Your task to perform on an android device: open app "PUBG MOBILE" (install if not already installed) and go to login screen Image 0: 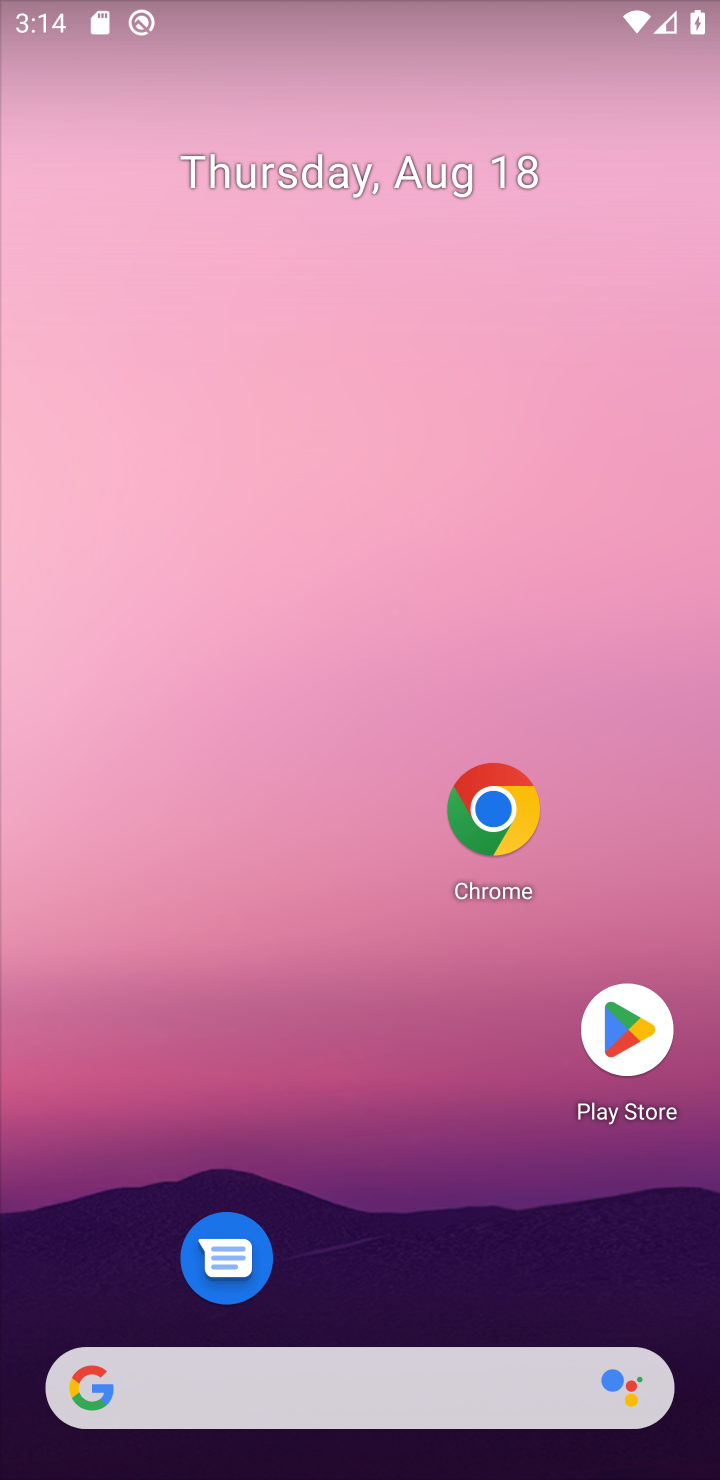
Step 0: drag from (389, 573) to (407, 471)
Your task to perform on an android device: open app "PUBG MOBILE" (install if not already installed) and go to login screen Image 1: 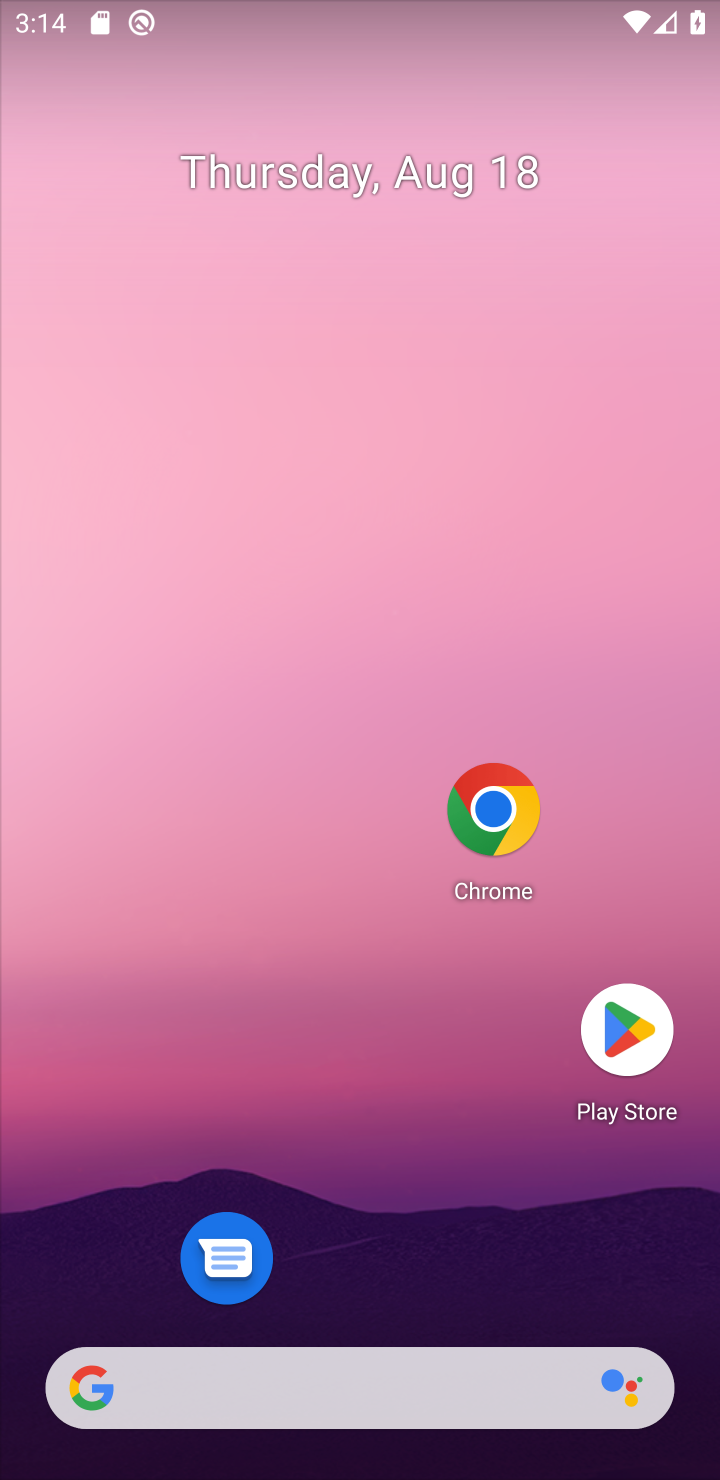
Step 1: drag from (373, 1284) to (412, 585)
Your task to perform on an android device: open app "PUBG MOBILE" (install if not already installed) and go to login screen Image 2: 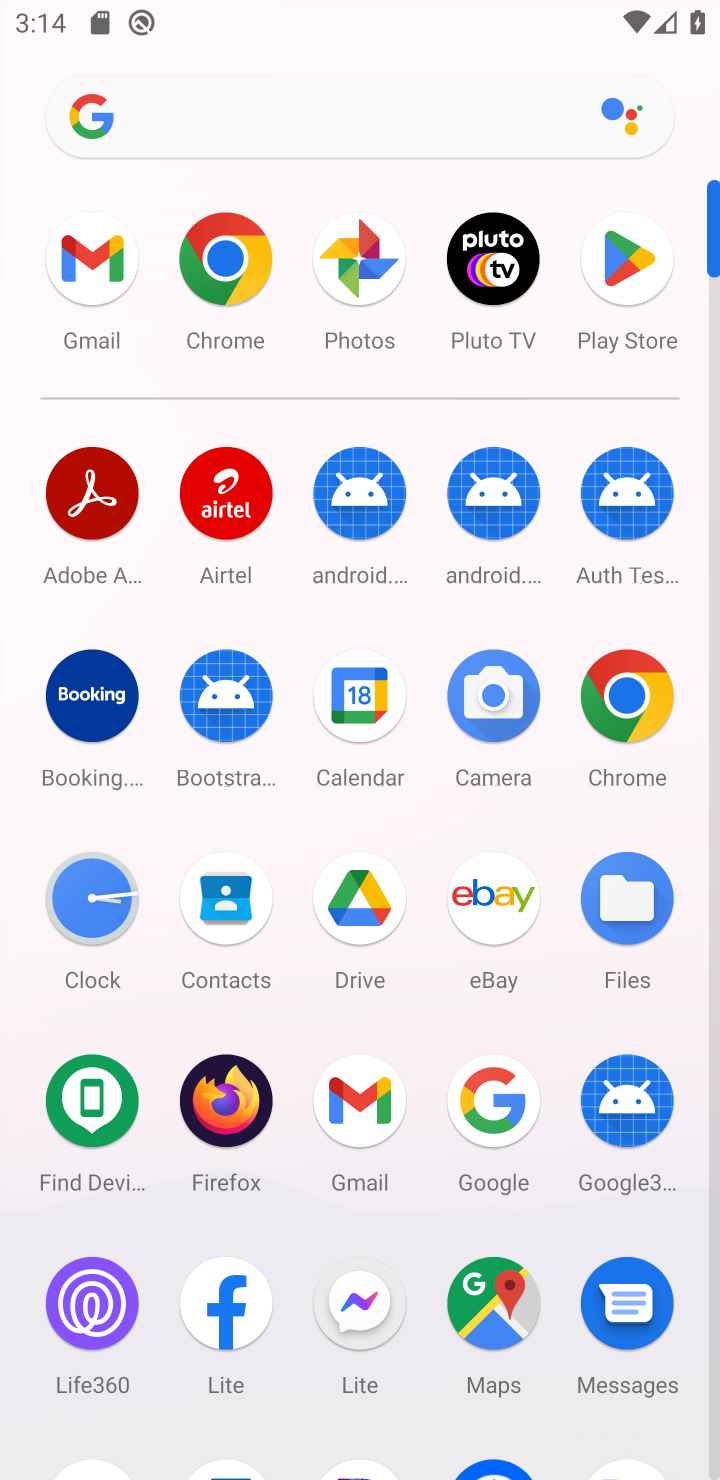
Step 2: click (598, 262)
Your task to perform on an android device: open app "PUBG MOBILE" (install if not already installed) and go to login screen Image 3: 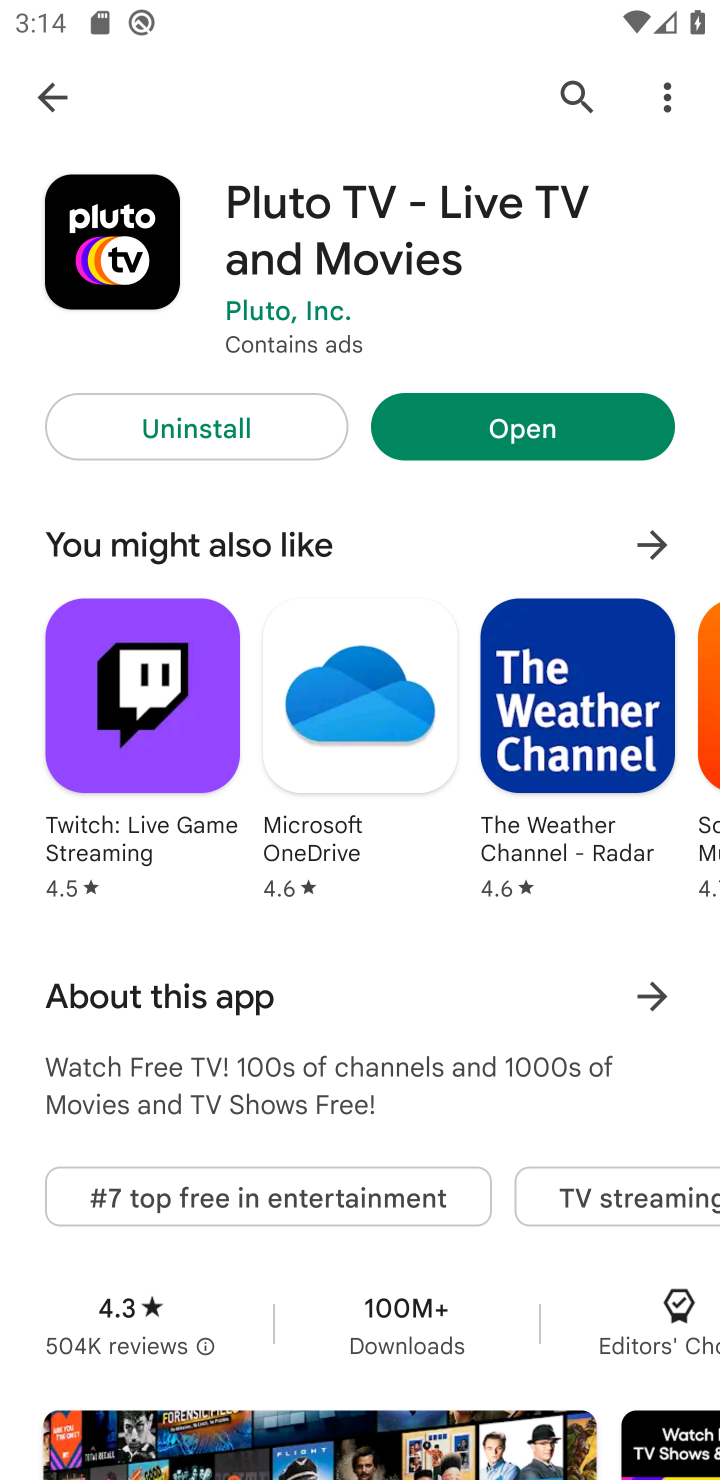
Step 3: click (47, 104)
Your task to perform on an android device: open app "PUBG MOBILE" (install if not already installed) and go to login screen Image 4: 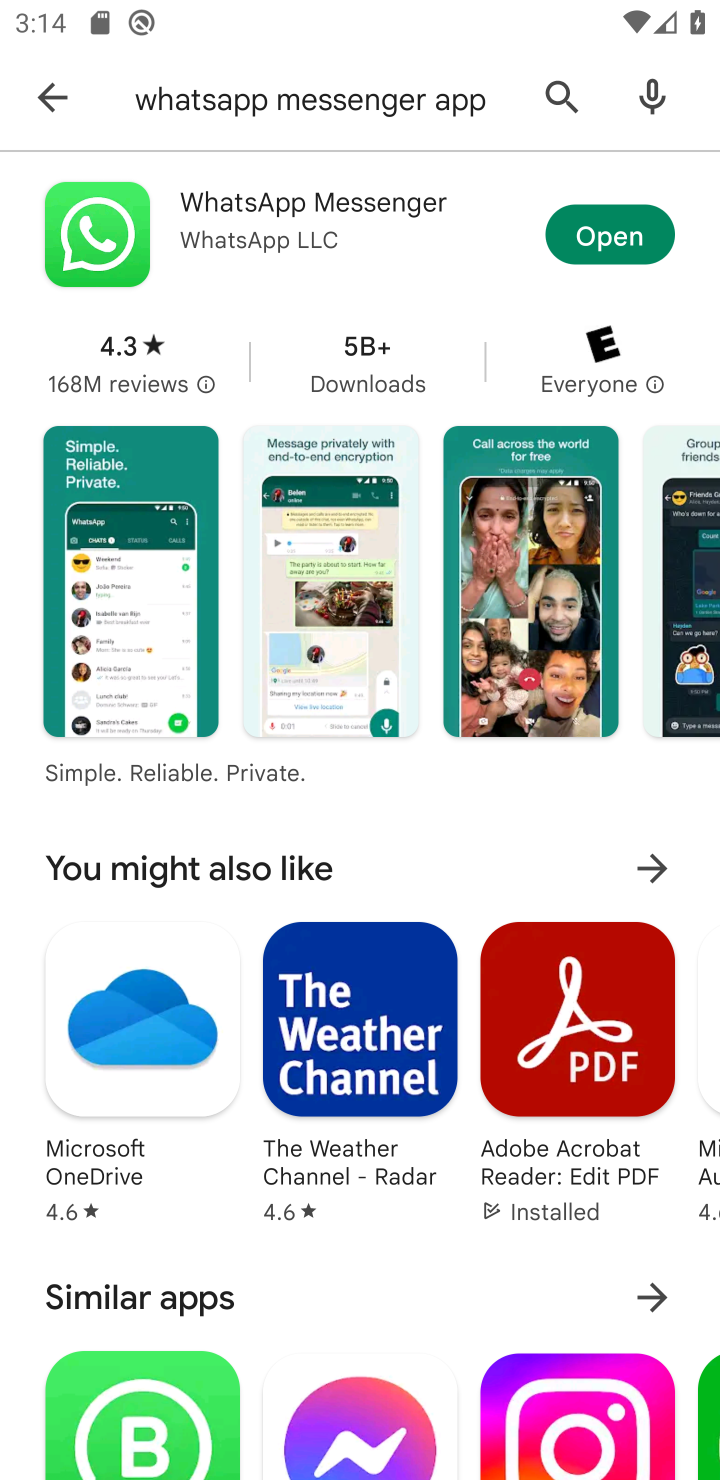
Step 4: click (63, 85)
Your task to perform on an android device: open app "PUBG MOBILE" (install if not already installed) and go to login screen Image 5: 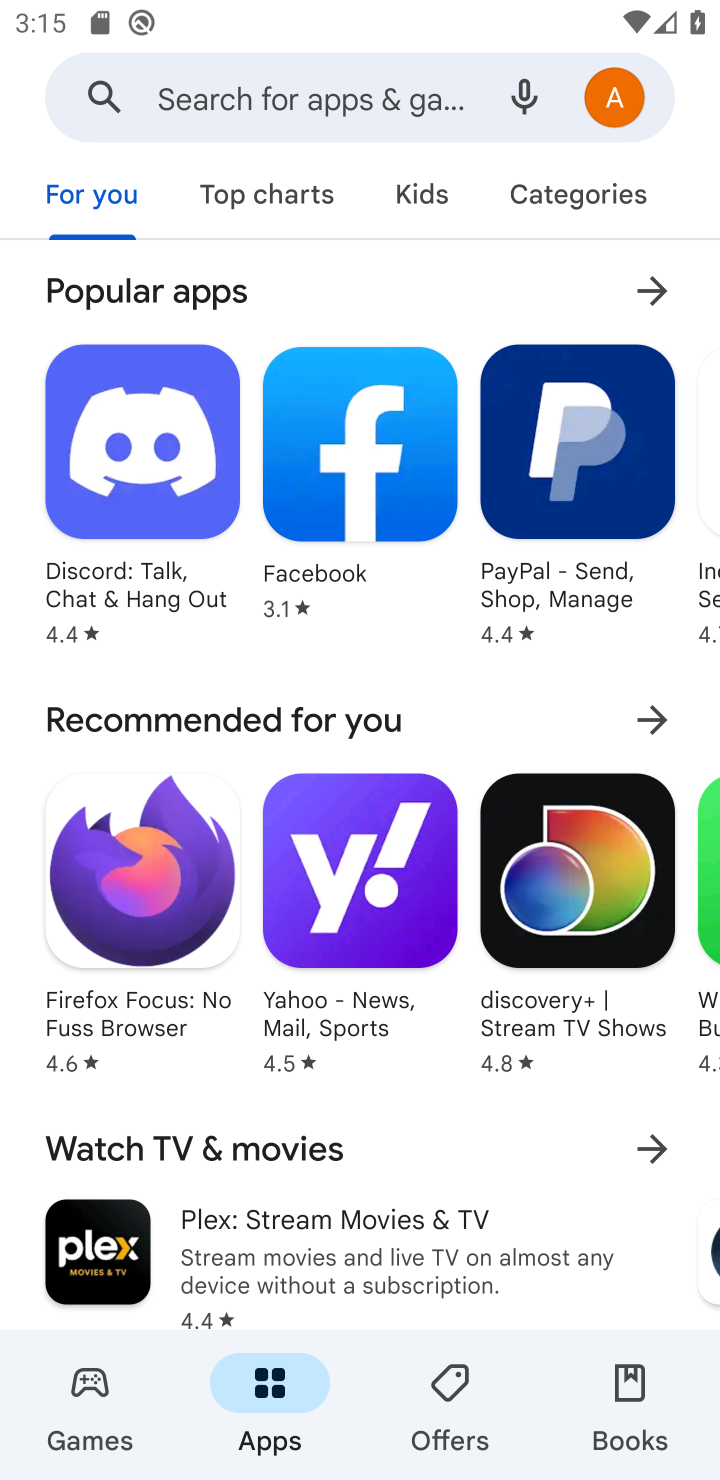
Step 5: click (420, 87)
Your task to perform on an android device: open app "PUBG MOBILE" (install if not already installed) and go to login screen Image 6: 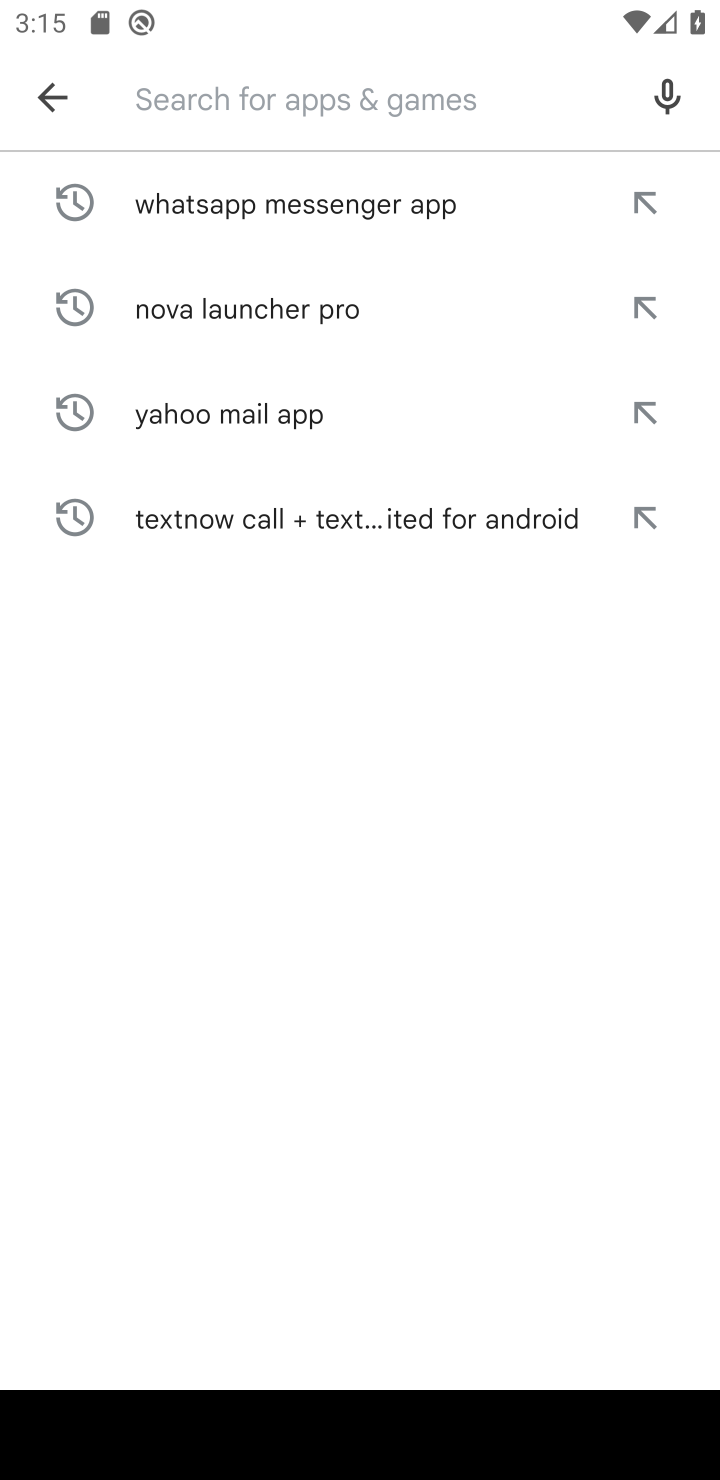
Step 6: click (320, 107)
Your task to perform on an android device: open app "PUBG MOBILE" (install if not already installed) and go to login screen Image 7: 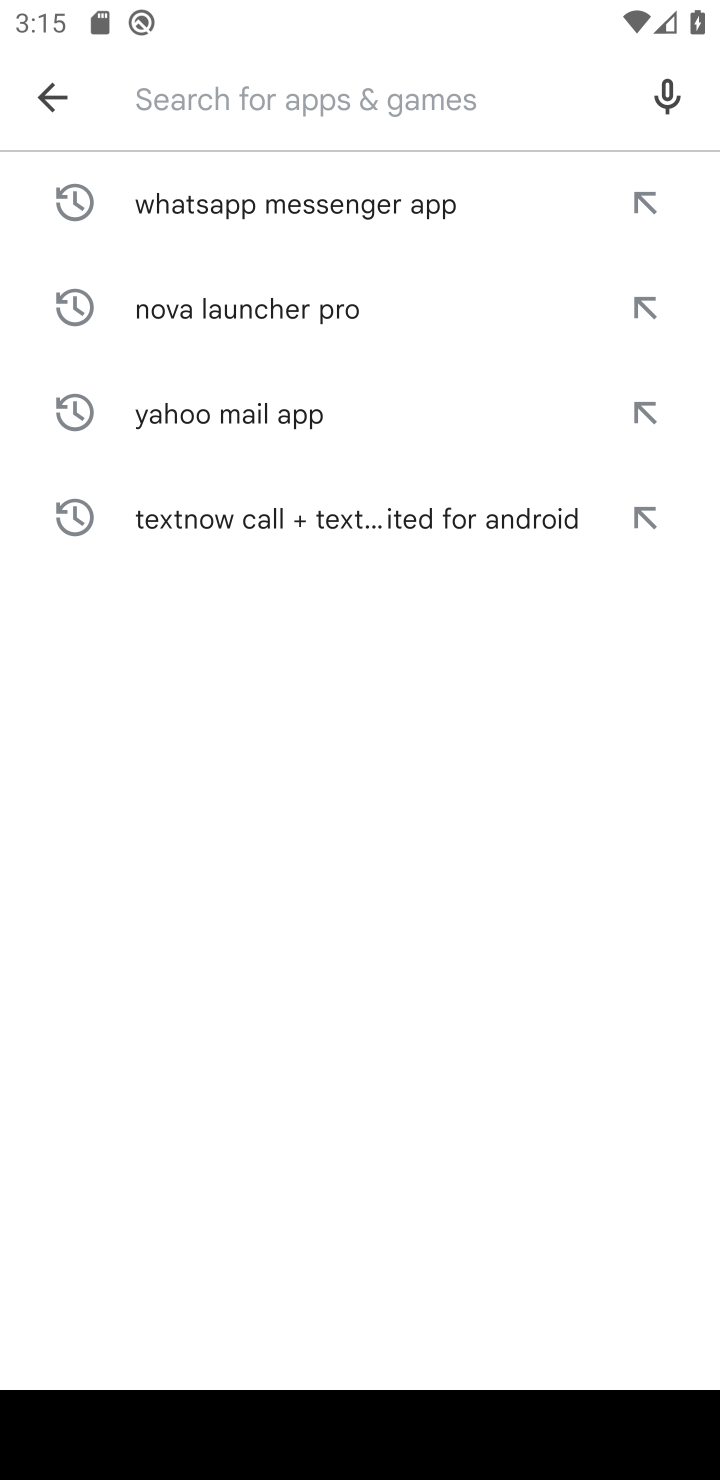
Step 7: type "PUBG MOBILE "
Your task to perform on an android device: open app "PUBG MOBILE" (install if not already installed) and go to login screen Image 8: 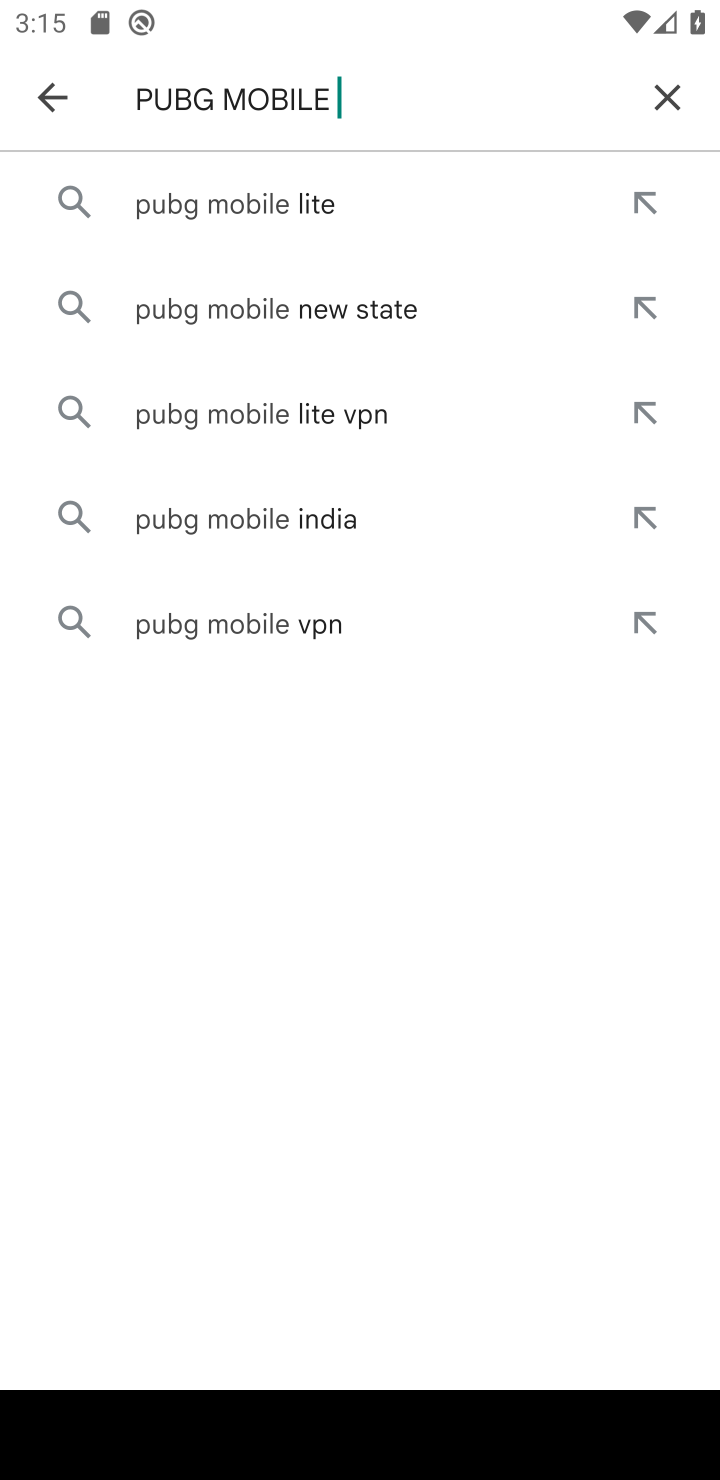
Step 8: click (210, 199)
Your task to perform on an android device: open app "PUBG MOBILE" (install if not already installed) and go to login screen Image 9: 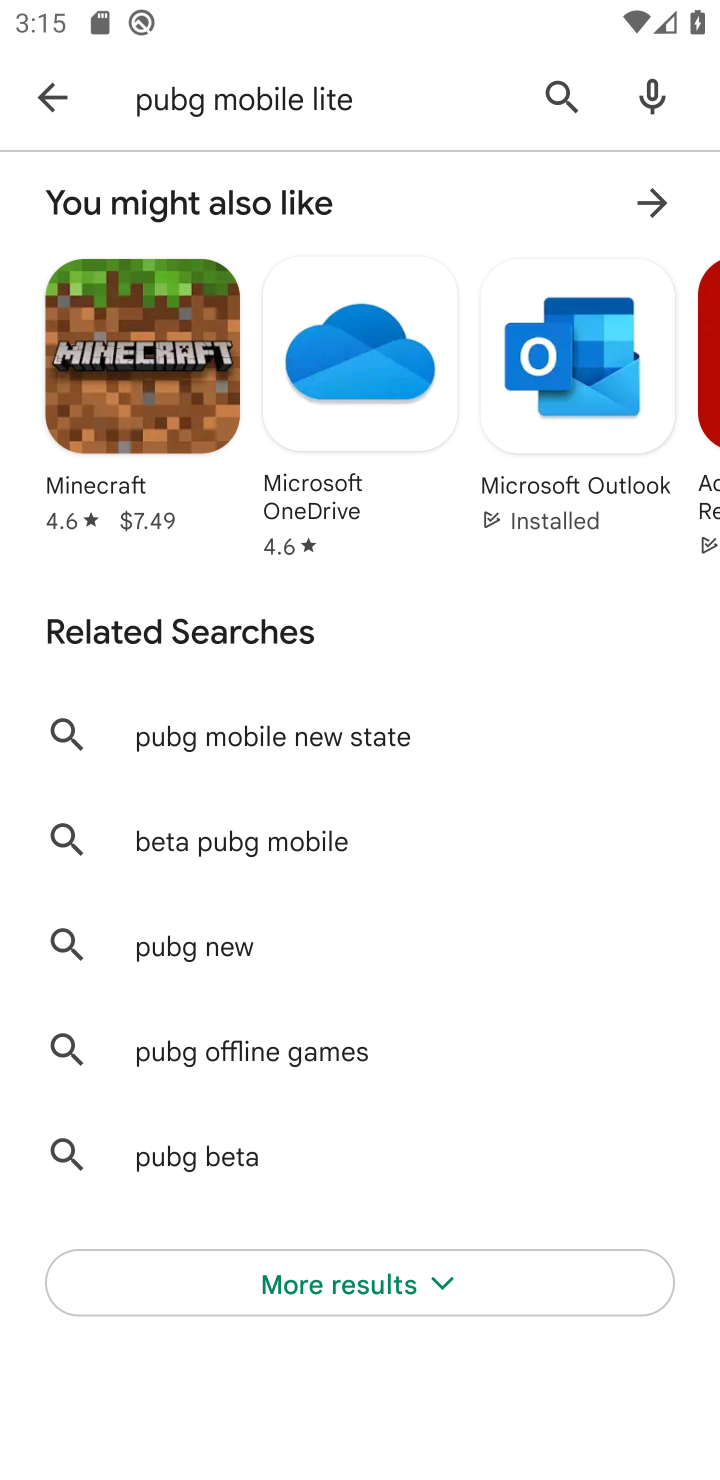
Step 9: click (222, 955)
Your task to perform on an android device: open app "PUBG MOBILE" (install if not already installed) and go to login screen Image 10: 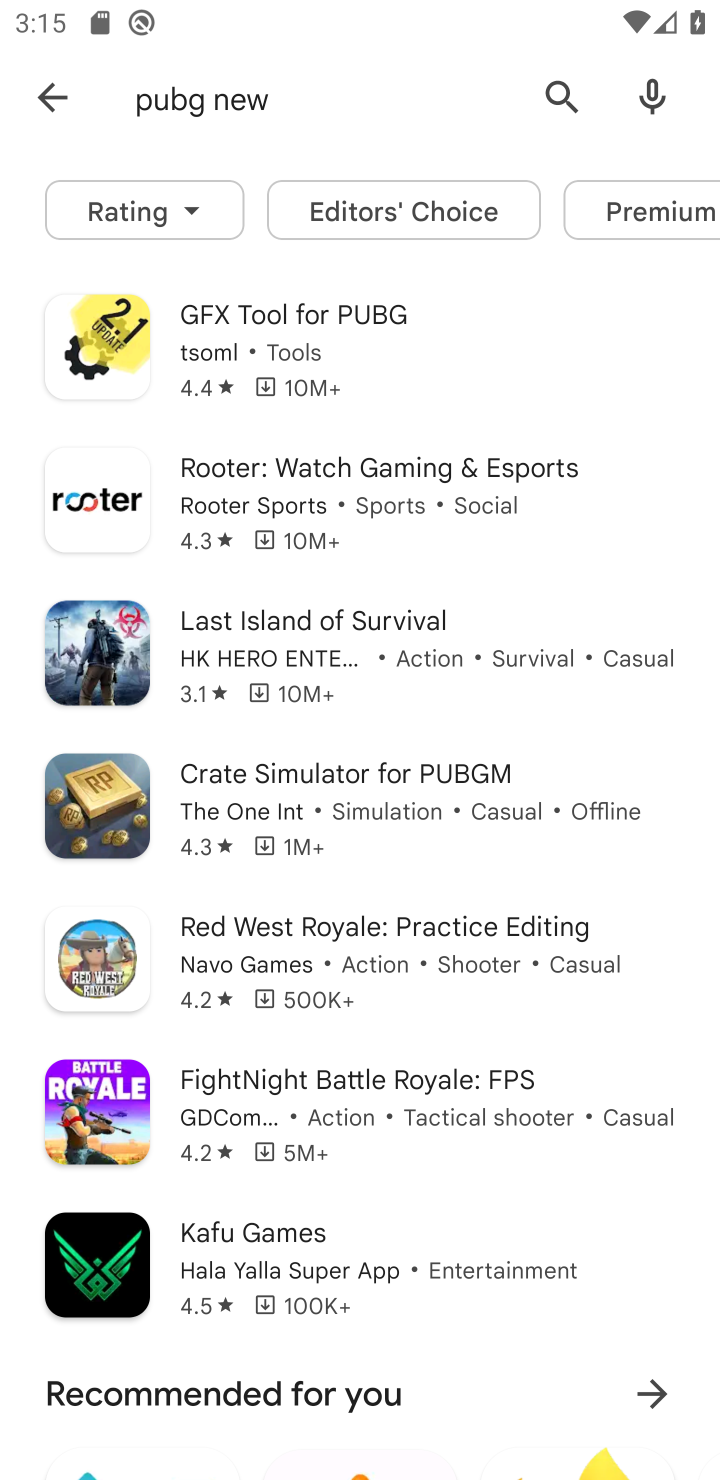
Step 10: task complete